Your task to perform on an android device: change the clock style Image 0: 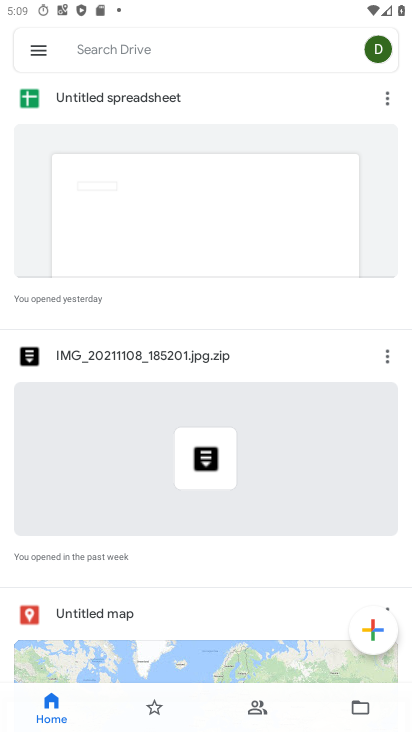
Step 0: press home button
Your task to perform on an android device: change the clock style Image 1: 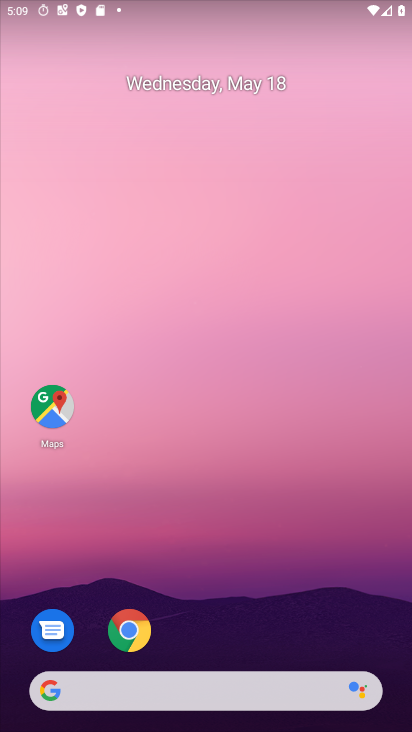
Step 1: drag from (170, 675) to (175, 293)
Your task to perform on an android device: change the clock style Image 2: 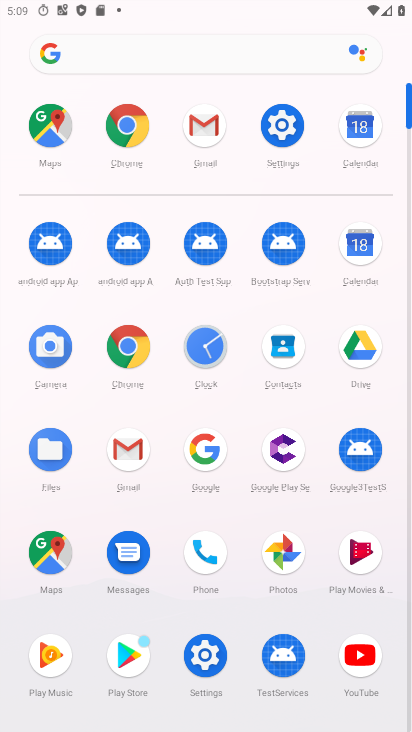
Step 2: click (200, 343)
Your task to perform on an android device: change the clock style Image 3: 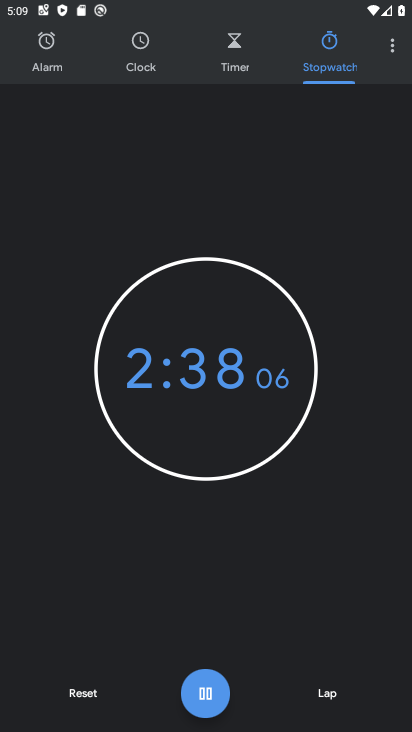
Step 3: click (397, 41)
Your task to perform on an android device: change the clock style Image 4: 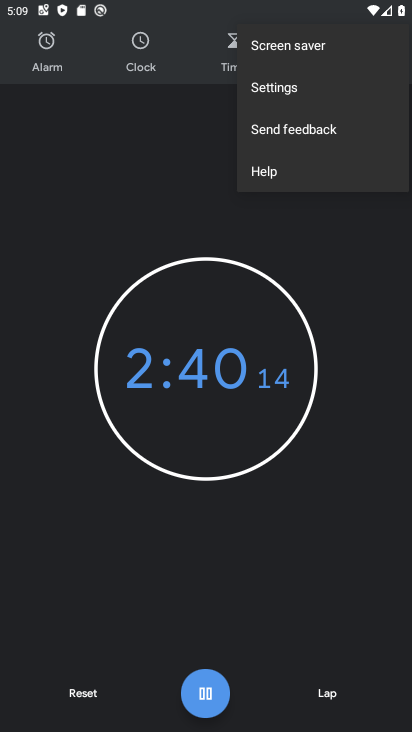
Step 4: click (285, 82)
Your task to perform on an android device: change the clock style Image 5: 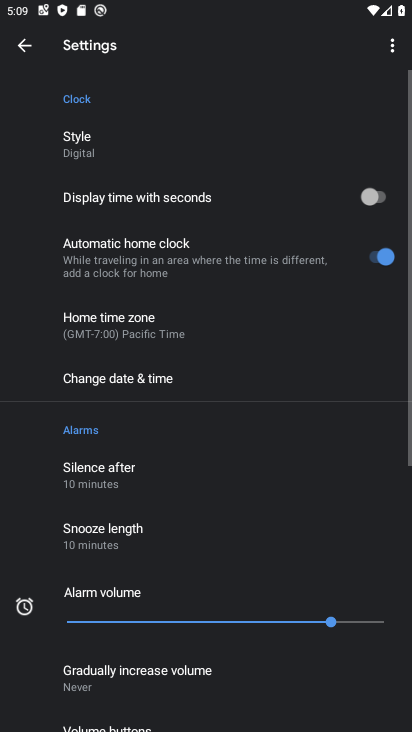
Step 5: drag from (163, 692) to (158, 352)
Your task to perform on an android device: change the clock style Image 6: 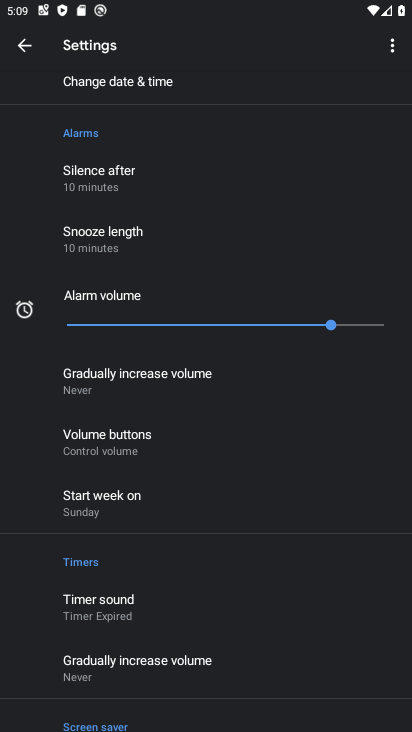
Step 6: drag from (179, 64) to (237, 564)
Your task to perform on an android device: change the clock style Image 7: 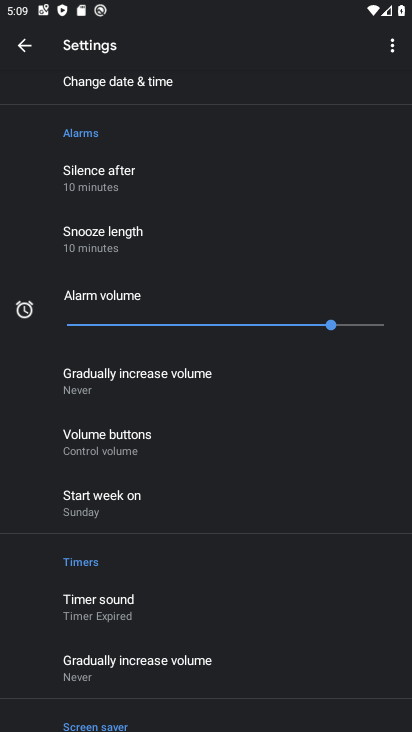
Step 7: drag from (226, 78) to (261, 481)
Your task to perform on an android device: change the clock style Image 8: 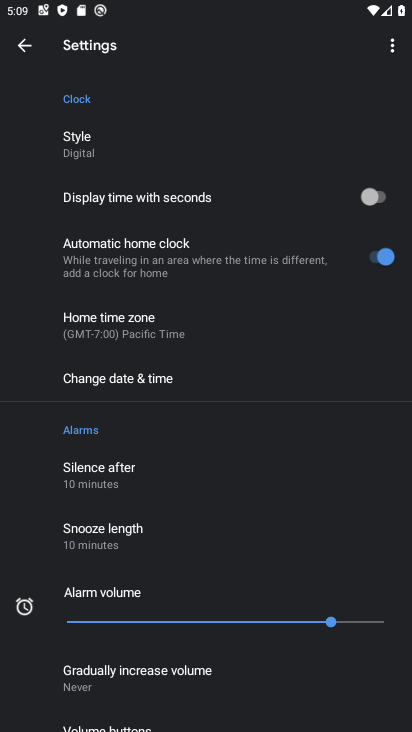
Step 8: click (74, 143)
Your task to perform on an android device: change the clock style Image 9: 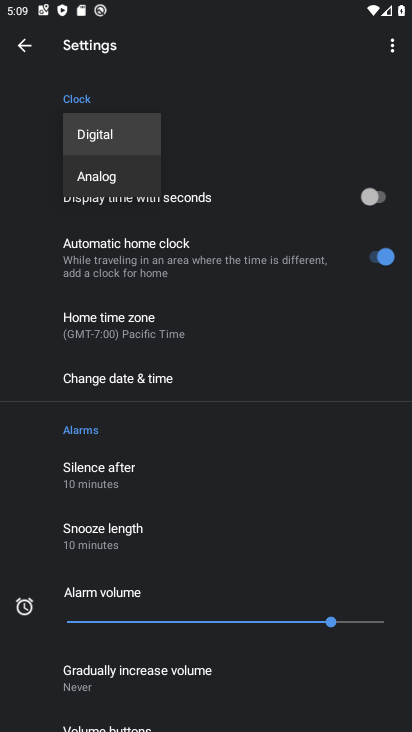
Step 9: click (117, 183)
Your task to perform on an android device: change the clock style Image 10: 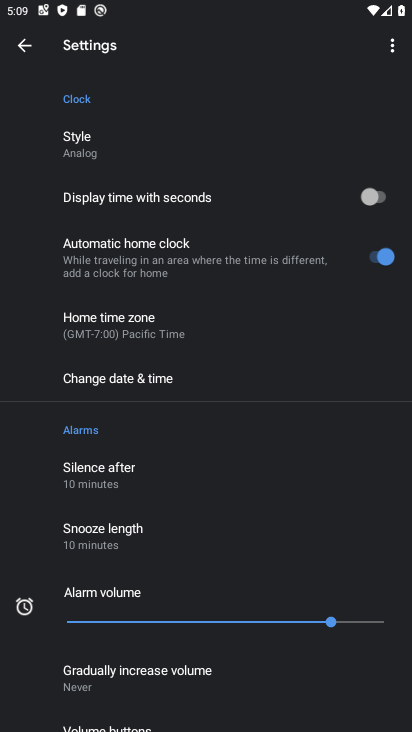
Step 10: task complete